Your task to perform on an android device: Open settings on Google Maps Image 0: 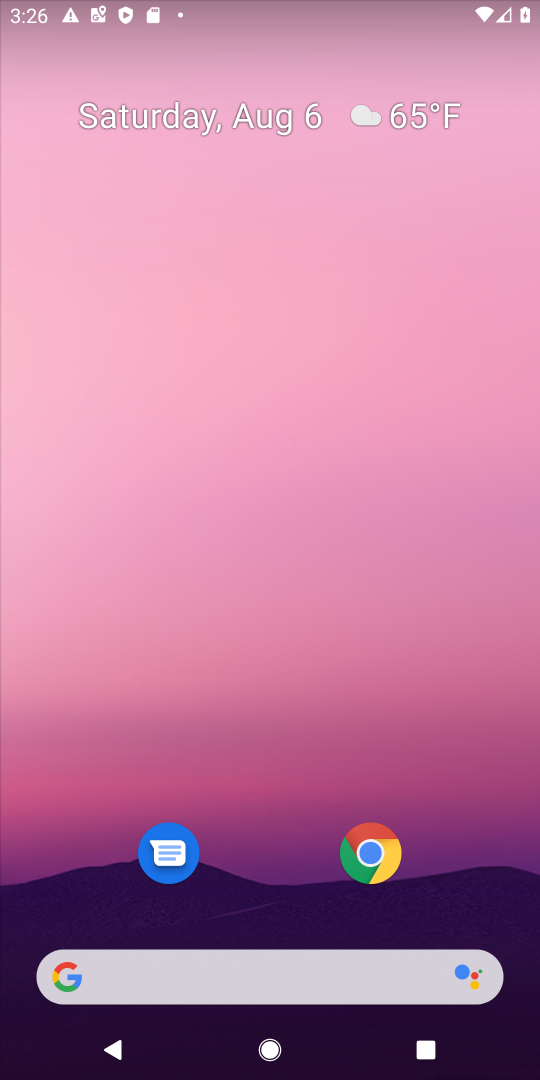
Step 0: drag from (248, 926) to (474, 30)
Your task to perform on an android device: Open settings on Google Maps Image 1: 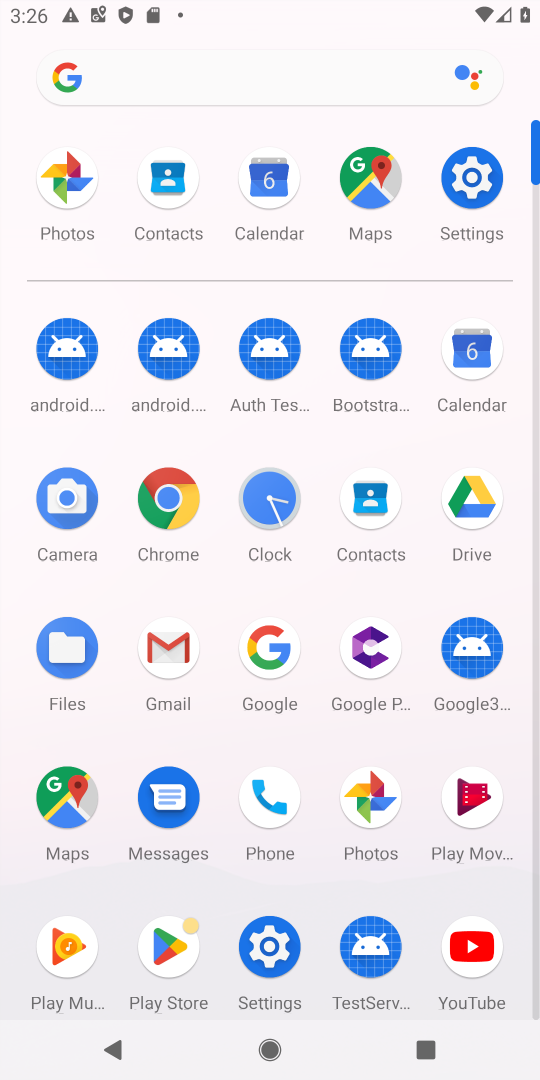
Step 1: click (82, 799)
Your task to perform on an android device: Open settings on Google Maps Image 2: 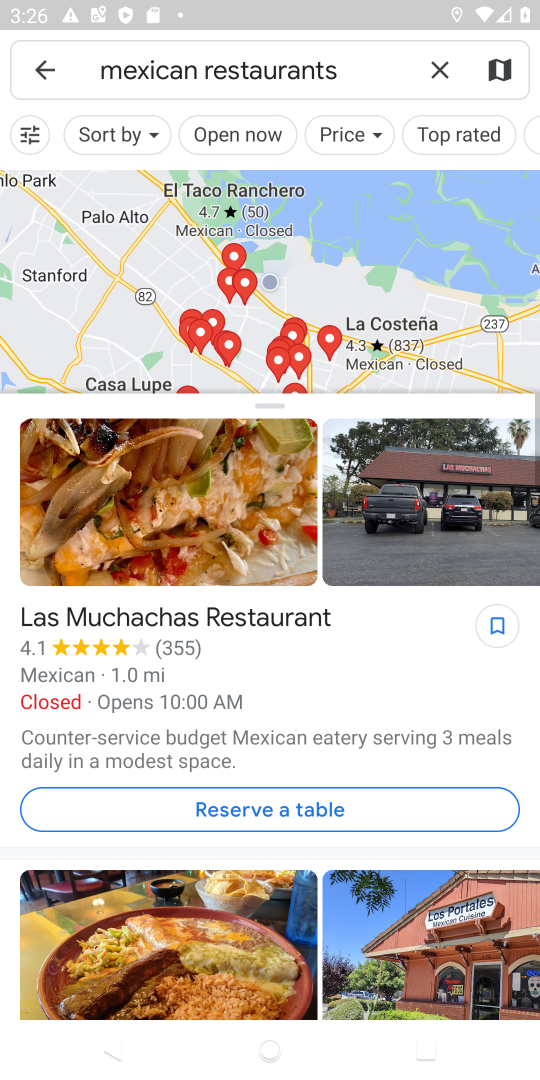
Step 2: click (50, 67)
Your task to perform on an android device: Open settings on Google Maps Image 3: 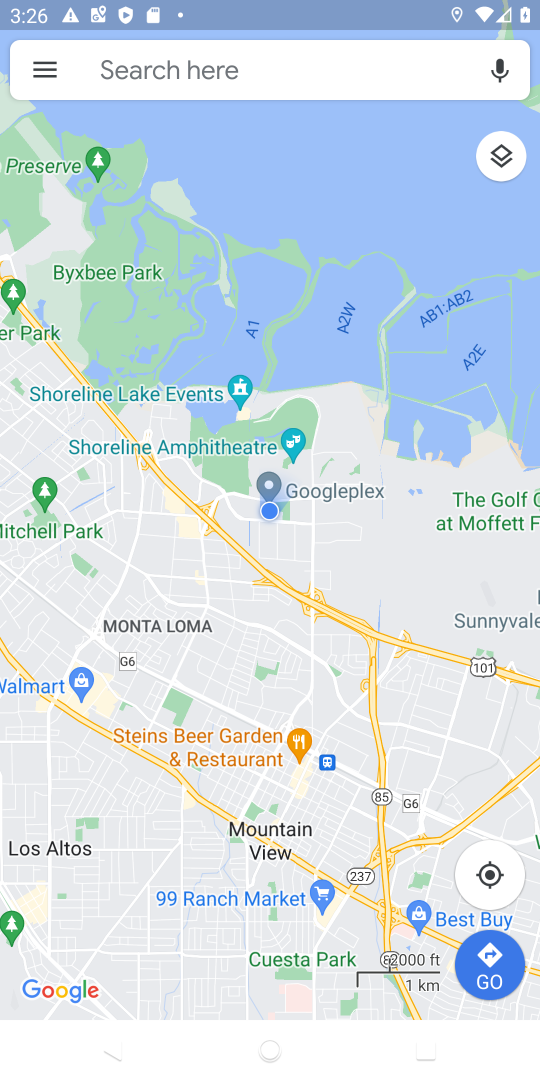
Step 3: click (46, 59)
Your task to perform on an android device: Open settings on Google Maps Image 4: 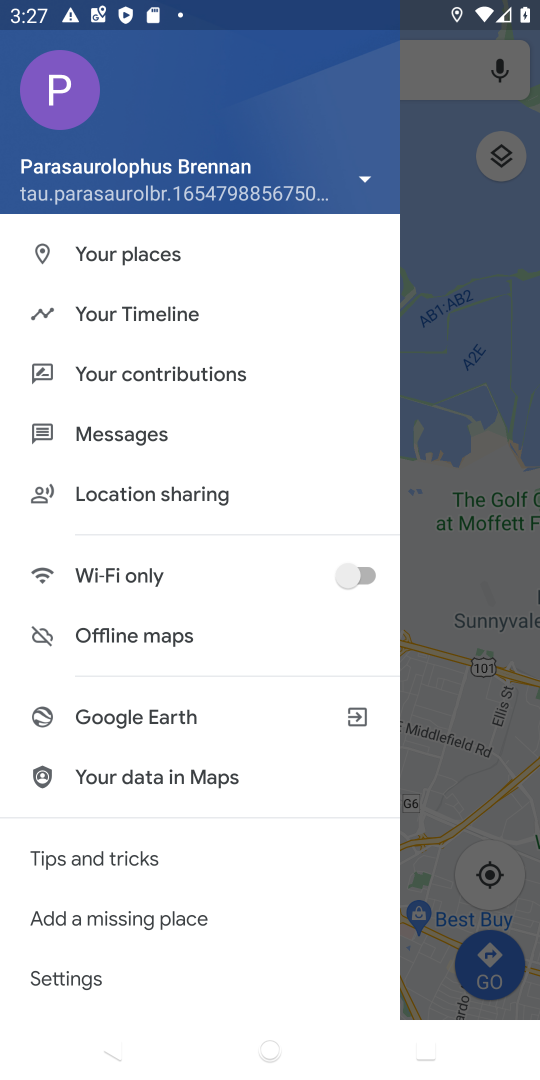
Step 4: click (106, 966)
Your task to perform on an android device: Open settings on Google Maps Image 5: 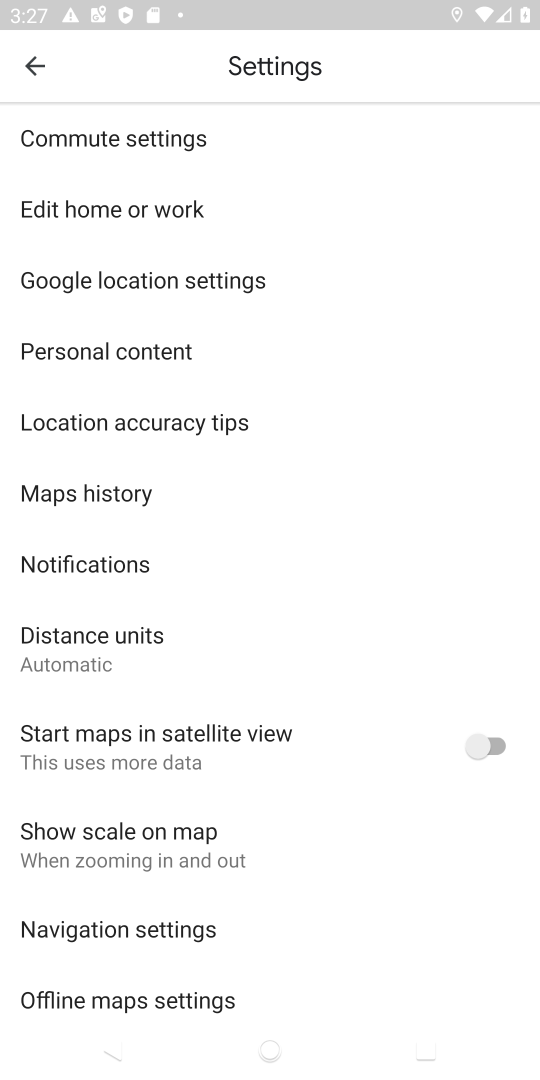
Step 5: task complete